Your task to perform on an android device: change notification settings in the gmail app Image 0: 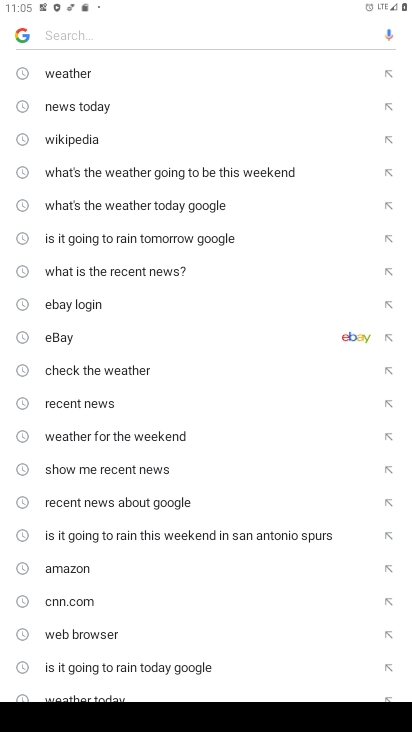
Step 0: click (381, 426)
Your task to perform on an android device: change notification settings in the gmail app Image 1: 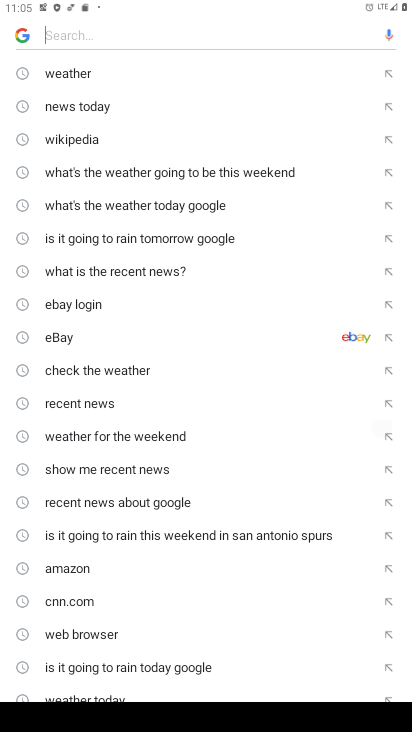
Step 1: drag from (262, 560) to (262, 142)
Your task to perform on an android device: change notification settings in the gmail app Image 2: 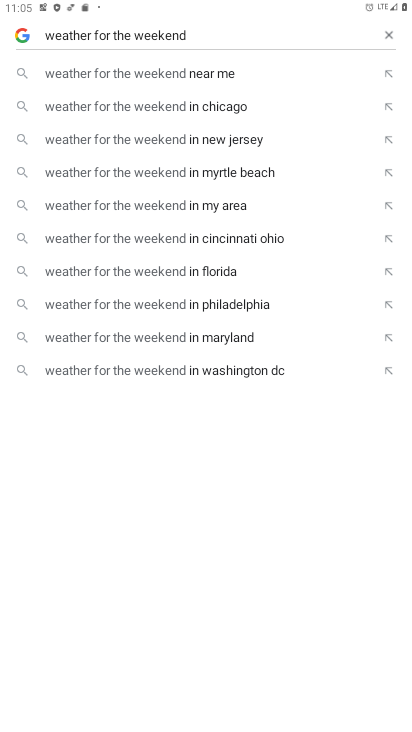
Step 2: press home button
Your task to perform on an android device: change notification settings in the gmail app Image 3: 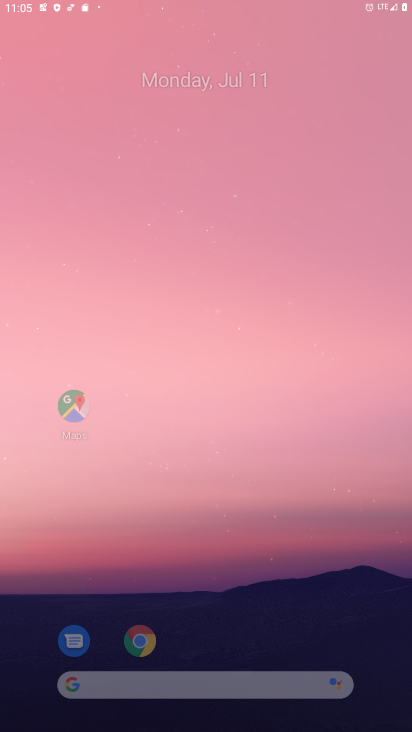
Step 3: drag from (219, 469) to (260, 4)
Your task to perform on an android device: change notification settings in the gmail app Image 4: 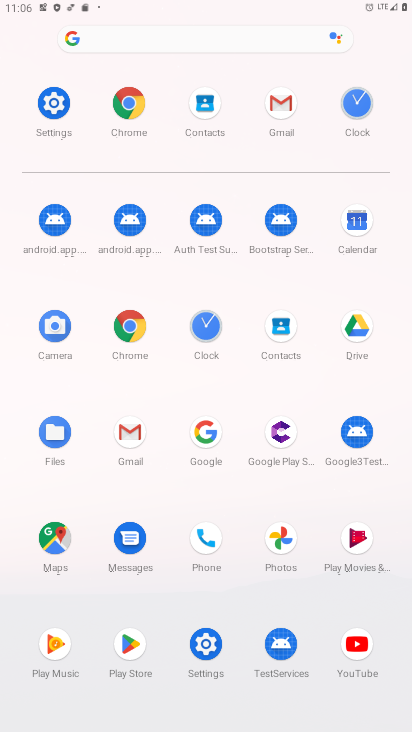
Step 4: click (282, 109)
Your task to perform on an android device: change notification settings in the gmail app Image 5: 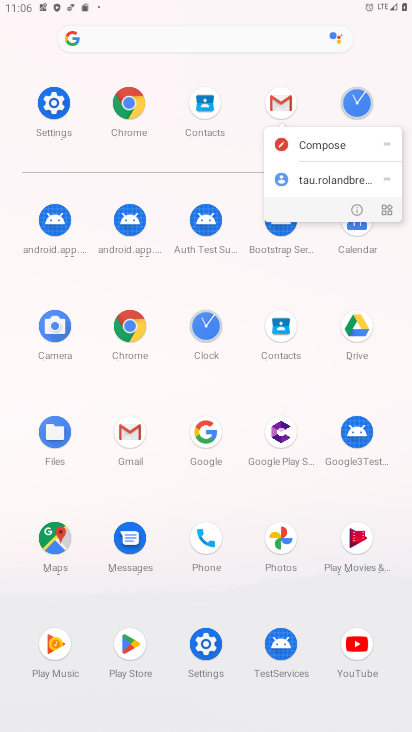
Step 5: click (352, 207)
Your task to perform on an android device: change notification settings in the gmail app Image 6: 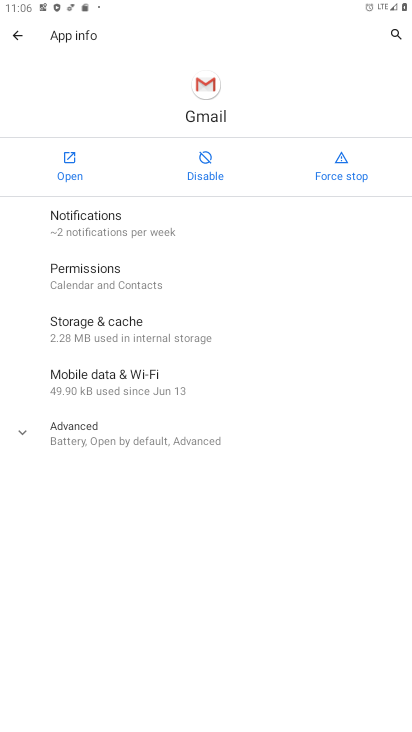
Step 6: click (68, 171)
Your task to perform on an android device: change notification settings in the gmail app Image 7: 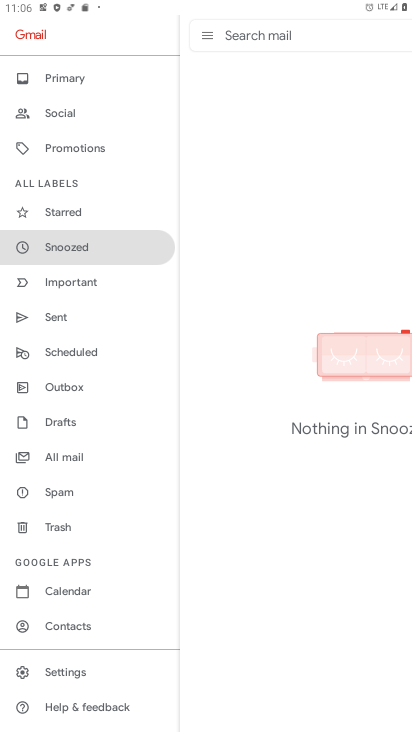
Step 7: click (77, 669)
Your task to perform on an android device: change notification settings in the gmail app Image 8: 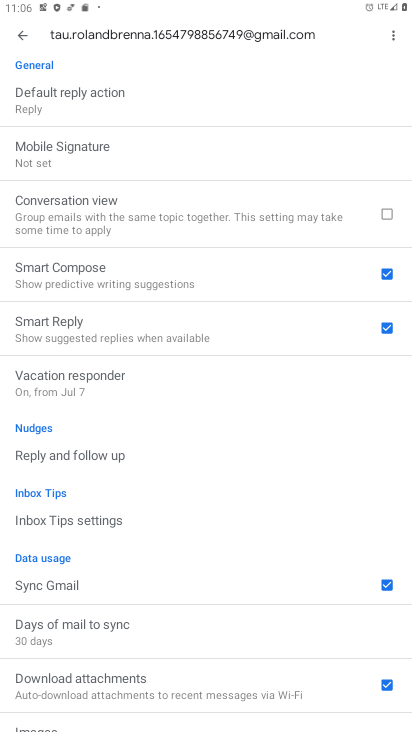
Step 8: drag from (161, 566) to (258, 161)
Your task to perform on an android device: change notification settings in the gmail app Image 9: 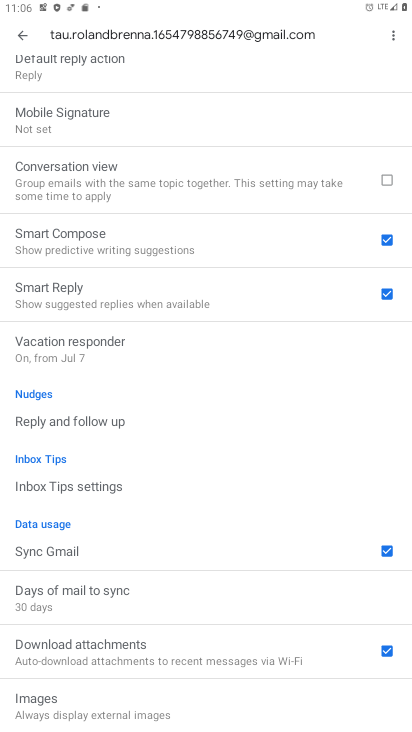
Step 9: drag from (159, 619) to (246, 185)
Your task to perform on an android device: change notification settings in the gmail app Image 10: 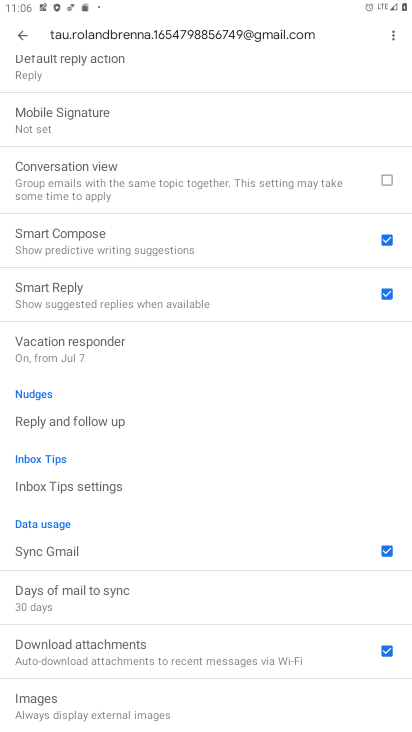
Step 10: drag from (210, 190) to (257, 655)
Your task to perform on an android device: change notification settings in the gmail app Image 11: 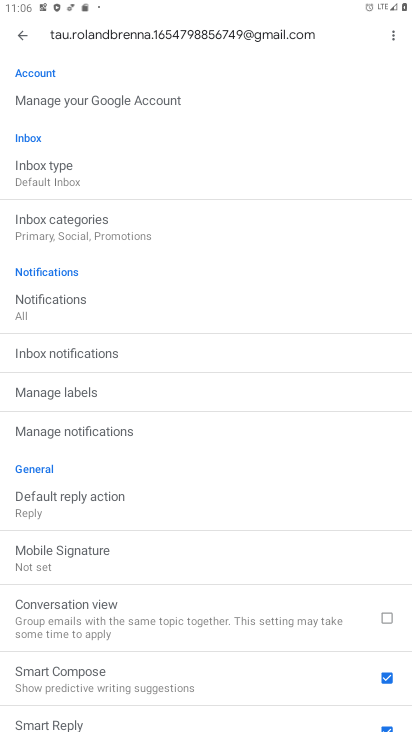
Step 11: click (122, 442)
Your task to perform on an android device: change notification settings in the gmail app Image 12: 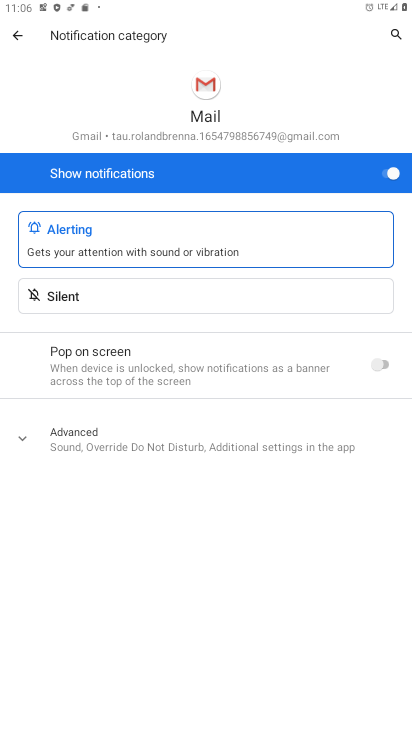
Step 12: click (129, 433)
Your task to perform on an android device: change notification settings in the gmail app Image 13: 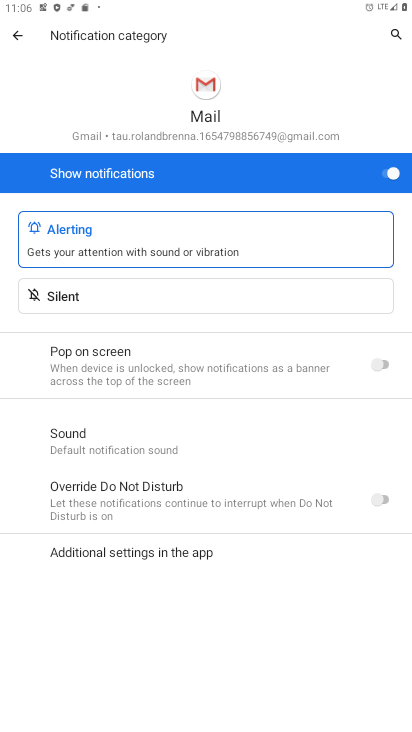
Step 13: drag from (202, 585) to (267, 330)
Your task to perform on an android device: change notification settings in the gmail app Image 14: 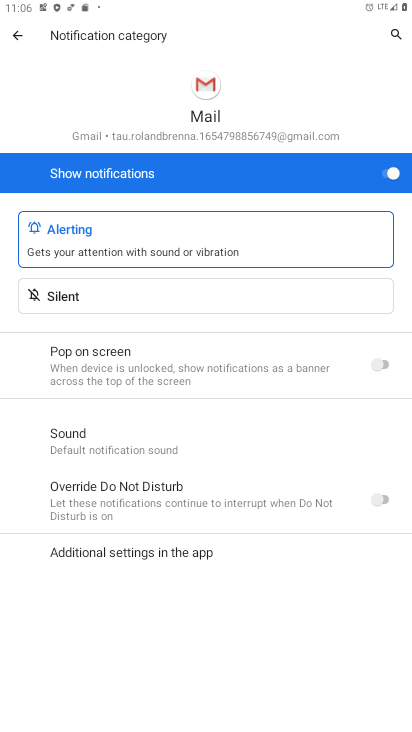
Step 14: drag from (207, 285) to (258, 575)
Your task to perform on an android device: change notification settings in the gmail app Image 15: 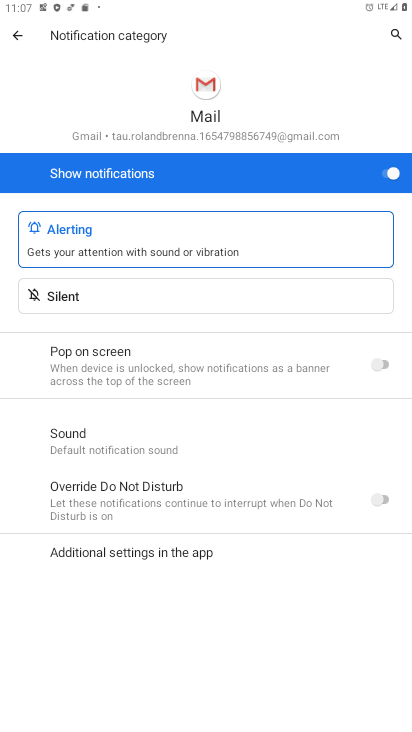
Step 15: click (390, 163)
Your task to perform on an android device: change notification settings in the gmail app Image 16: 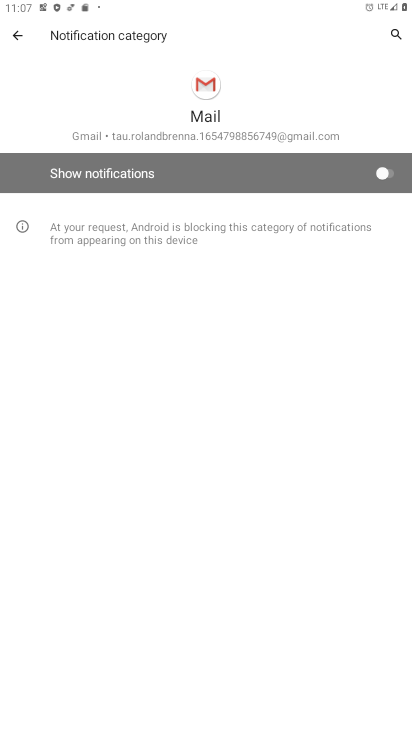
Step 16: task complete